Your task to perform on an android device: Open battery settings Image 0: 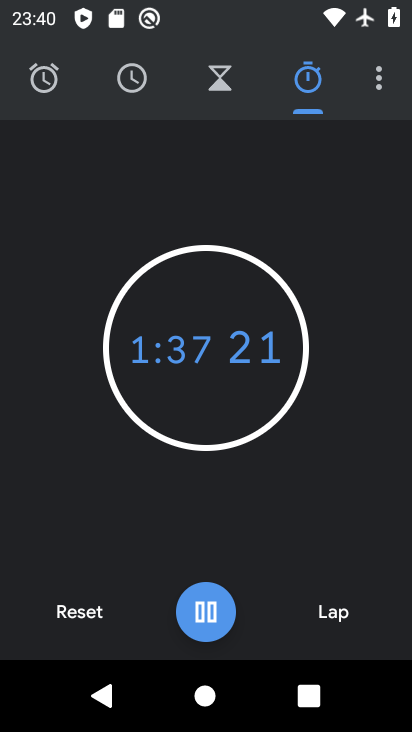
Step 0: press home button
Your task to perform on an android device: Open battery settings Image 1: 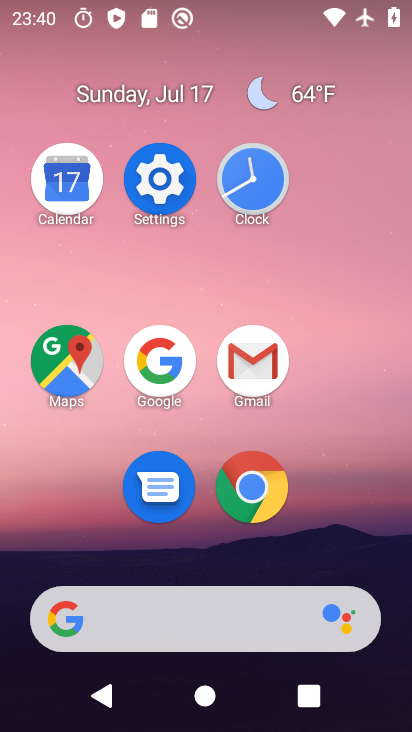
Step 1: click (167, 181)
Your task to perform on an android device: Open battery settings Image 2: 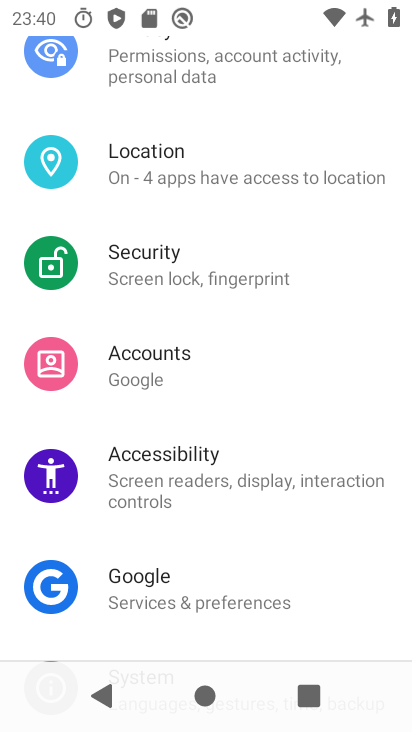
Step 2: drag from (320, 149) to (305, 502)
Your task to perform on an android device: Open battery settings Image 3: 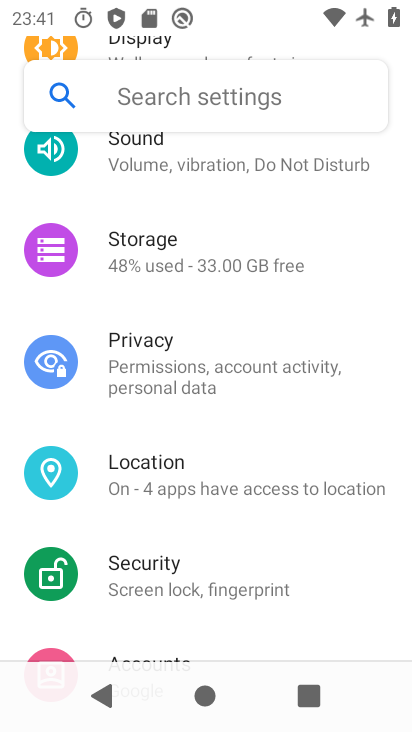
Step 3: drag from (318, 260) to (293, 516)
Your task to perform on an android device: Open battery settings Image 4: 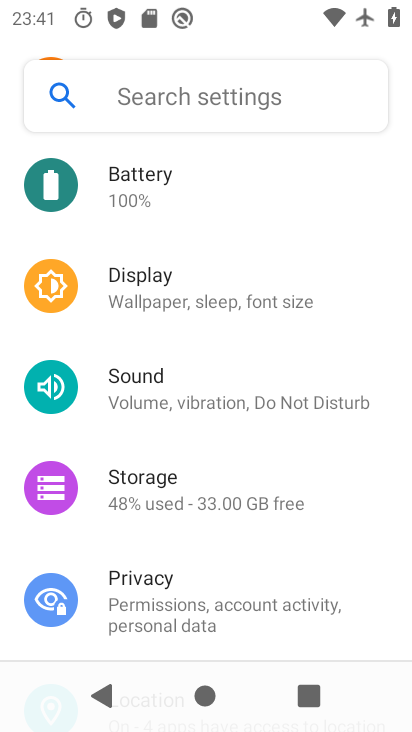
Step 4: click (290, 216)
Your task to perform on an android device: Open battery settings Image 5: 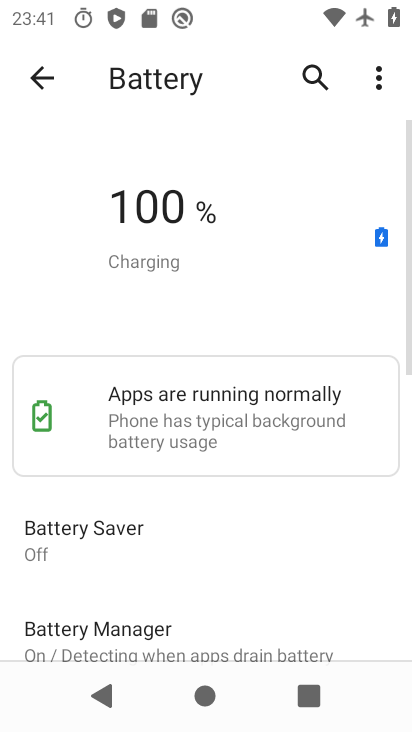
Step 5: task complete